Your task to perform on an android device: Go to internet settings Image 0: 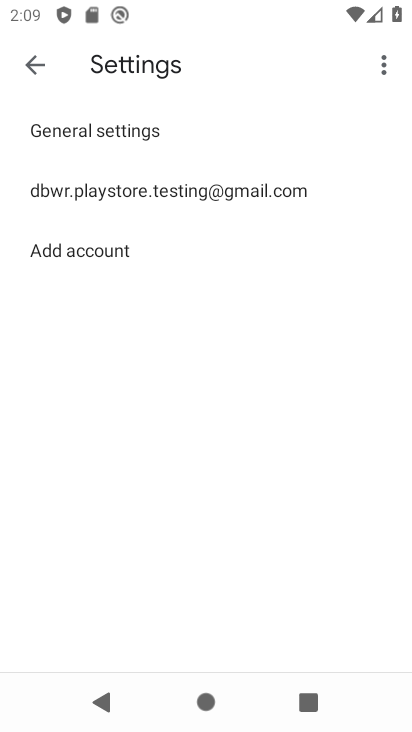
Step 0: drag from (251, 11) to (338, 693)
Your task to perform on an android device: Go to internet settings Image 1: 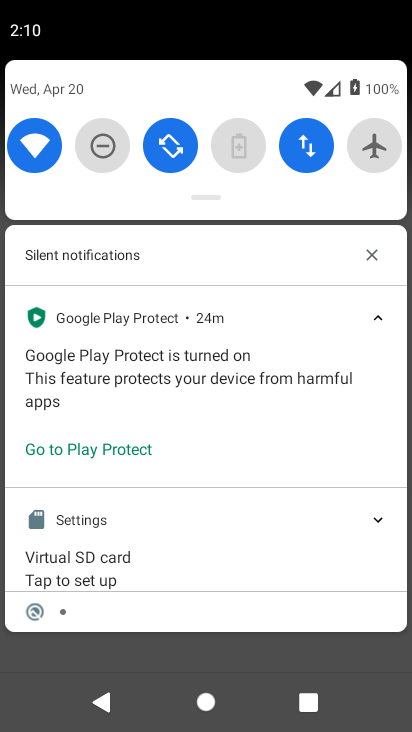
Step 1: drag from (200, 79) to (103, 600)
Your task to perform on an android device: Go to internet settings Image 2: 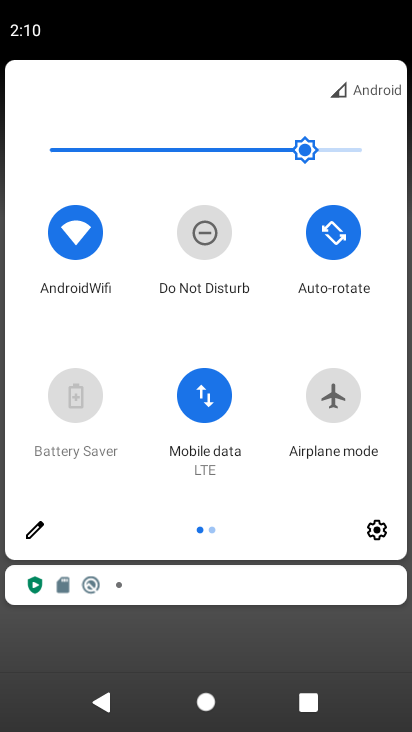
Step 2: click (373, 538)
Your task to perform on an android device: Go to internet settings Image 3: 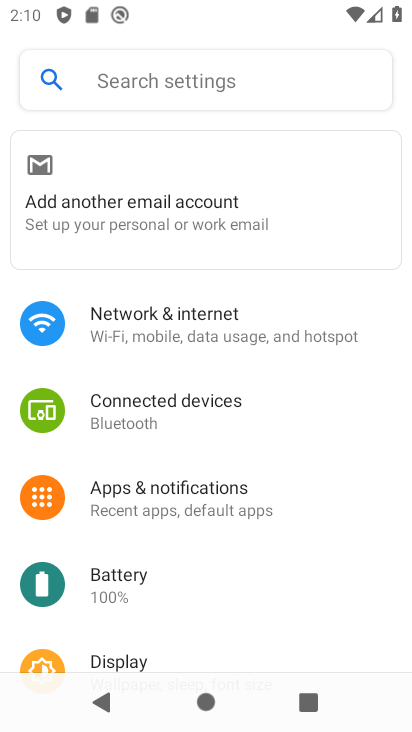
Step 3: click (228, 303)
Your task to perform on an android device: Go to internet settings Image 4: 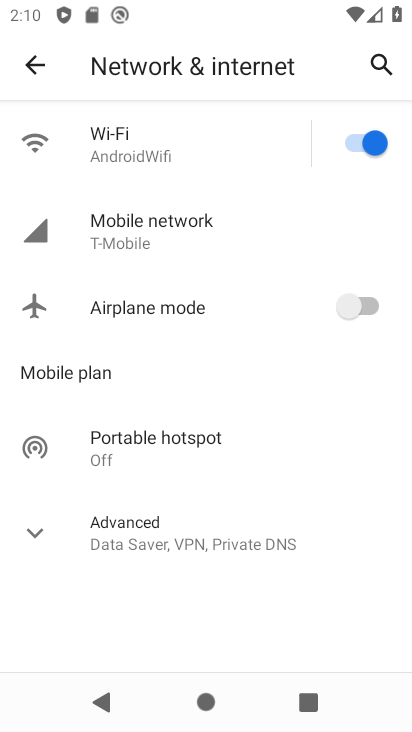
Step 4: task complete